Your task to perform on an android device: Show me popular games on the Play Store Image 0: 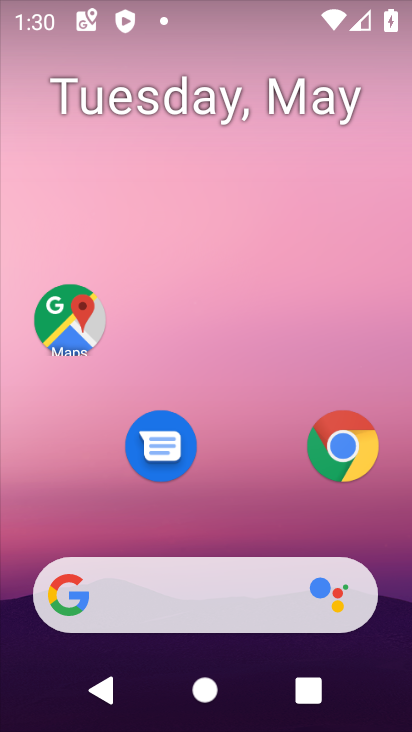
Step 0: click (158, 1)
Your task to perform on an android device: Show me popular games on the Play Store Image 1: 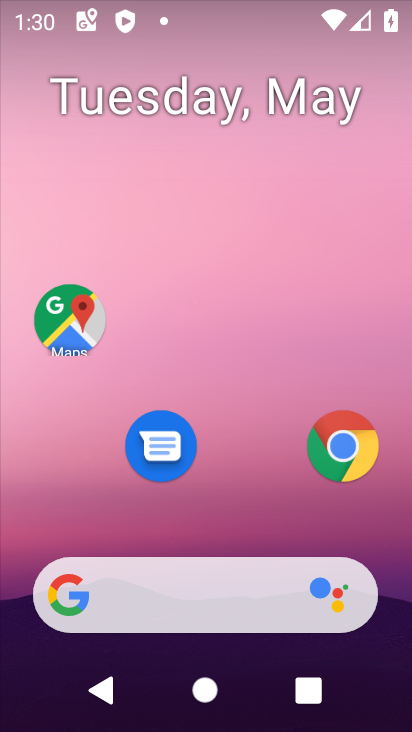
Step 1: drag from (221, 501) to (184, 78)
Your task to perform on an android device: Show me popular games on the Play Store Image 2: 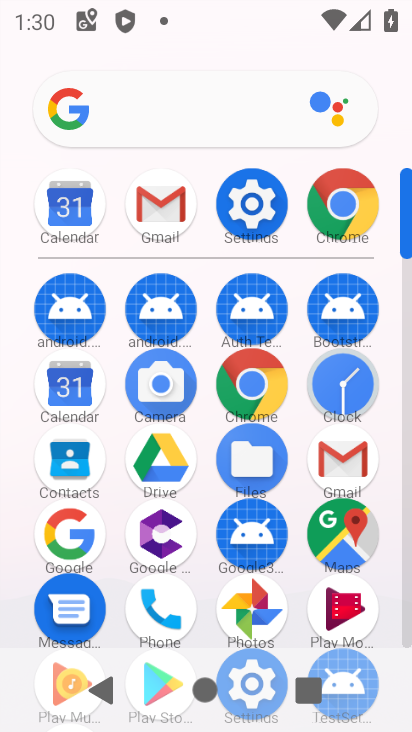
Step 2: drag from (204, 561) to (226, 144)
Your task to perform on an android device: Show me popular games on the Play Store Image 3: 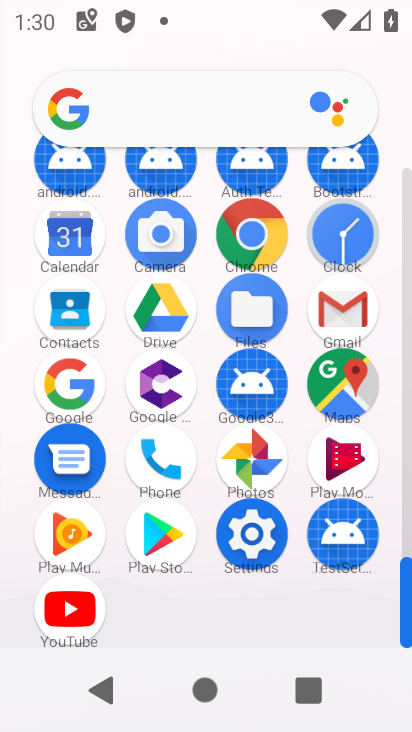
Step 3: click (168, 555)
Your task to perform on an android device: Show me popular games on the Play Store Image 4: 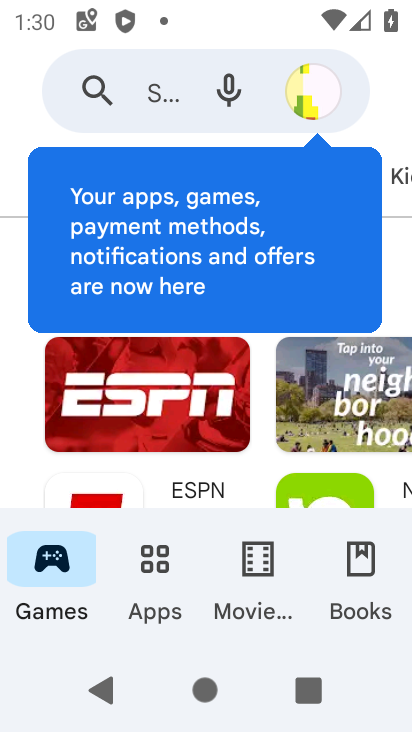
Step 4: drag from (218, 420) to (139, 127)
Your task to perform on an android device: Show me popular games on the Play Store Image 5: 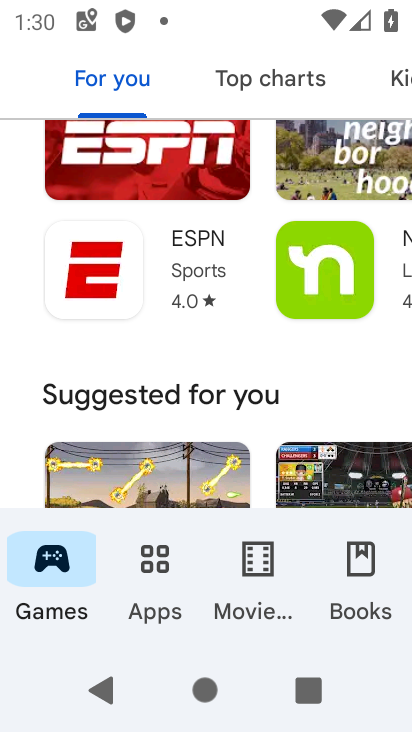
Step 5: drag from (209, 443) to (116, 41)
Your task to perform on an android device: Show me popular games on the Play Store Image 6: 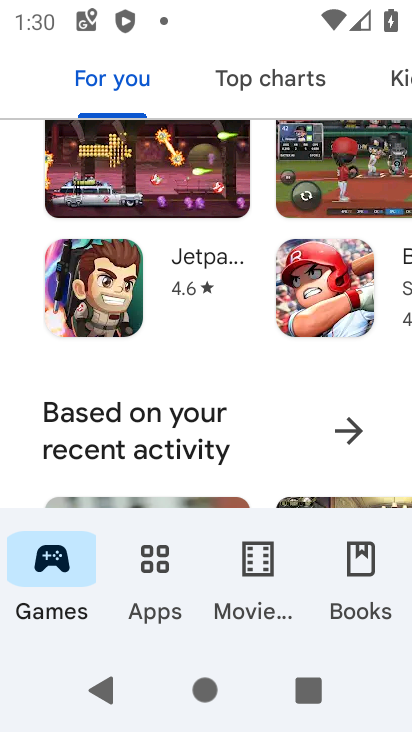
Step 6: drag from (312, 433) to (231, 9)
Your task to perform on an android device: Show me popular games on the Play Store Image 7: 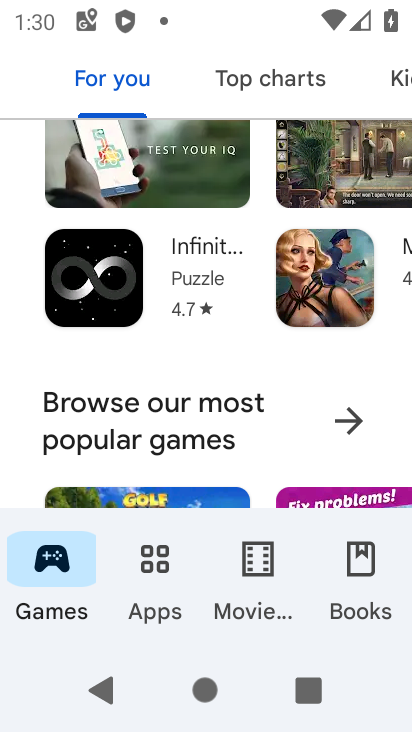
Step 7: click (349, 404)
Your task to perform on an android device: Show me popular games on the Play Store Image 8: 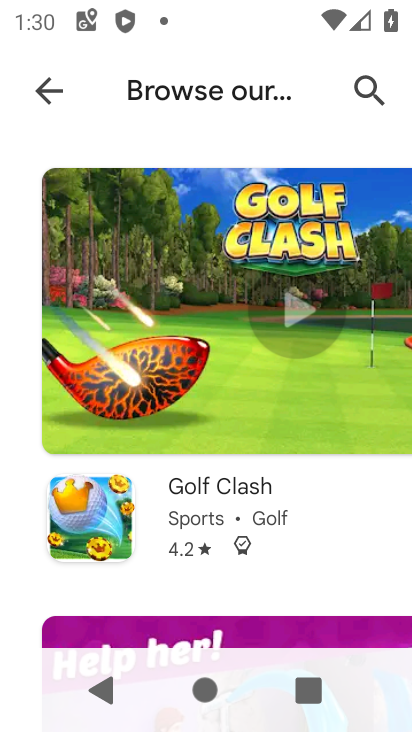
Step 8: task complete